Your task to perform on an android device: Open privacy settings Image 0: 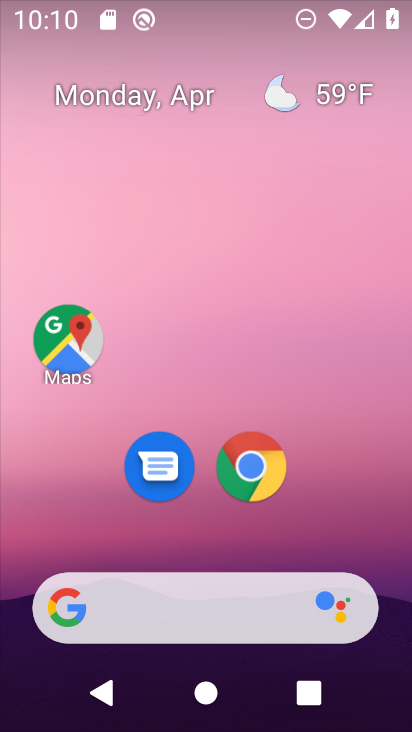
Step 0: drag from (176, 491) to (281, 9)
Your task to perform on an android device: Open privacy settings Image 1: 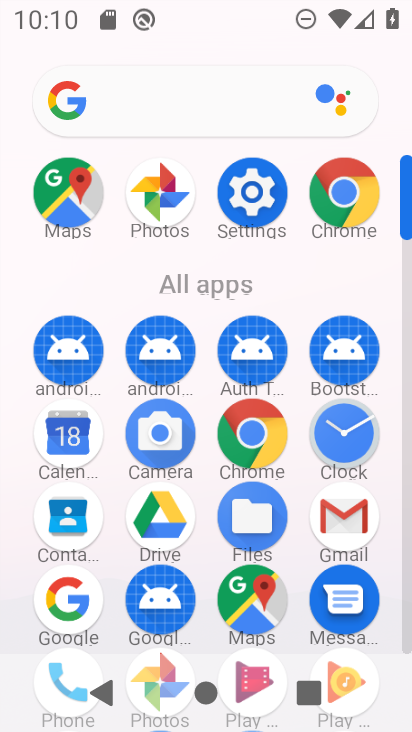
Step 1: click (245, 195)
Your task to perform on an android device: Open privacy settings Image 2: 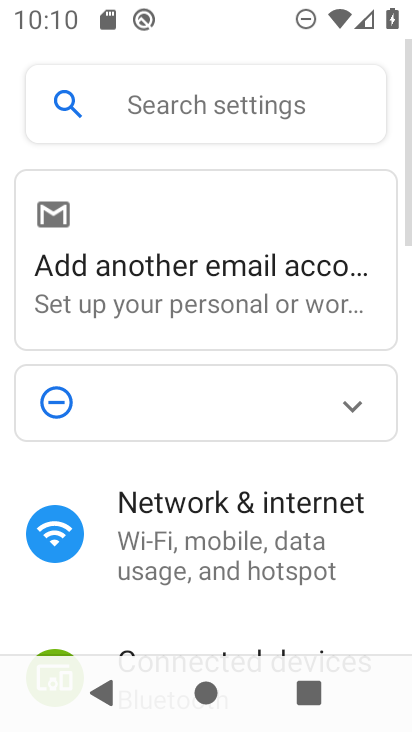
Step 2: drag from (220, 549) to (323, 26)
Your task to perform on an android device: Open privacy settings Image 3: 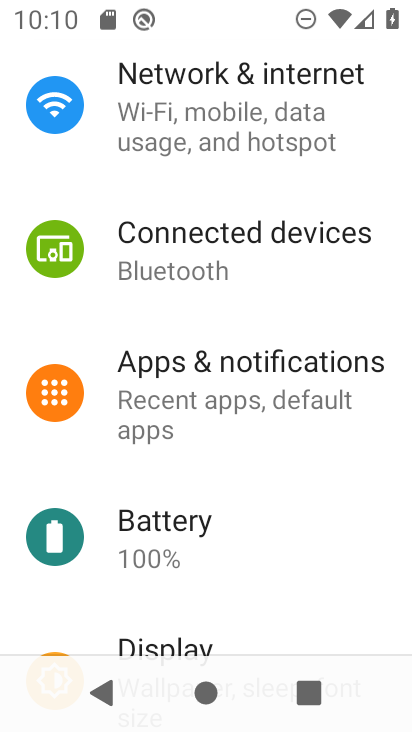
Step 3: drag from (155, 627) to (259, 69)
Your task to perform on an android device: Open privacy settings Image 4: 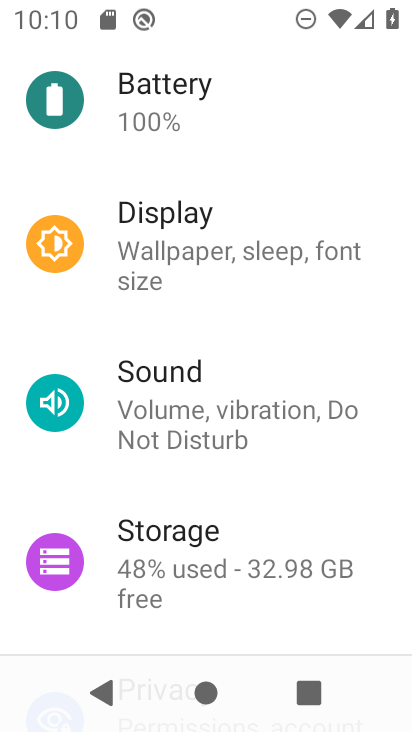
Step 4: drag from (147, 560) to (252, 89)
Your task to perform on an android device: Open privacy settings Image 5: 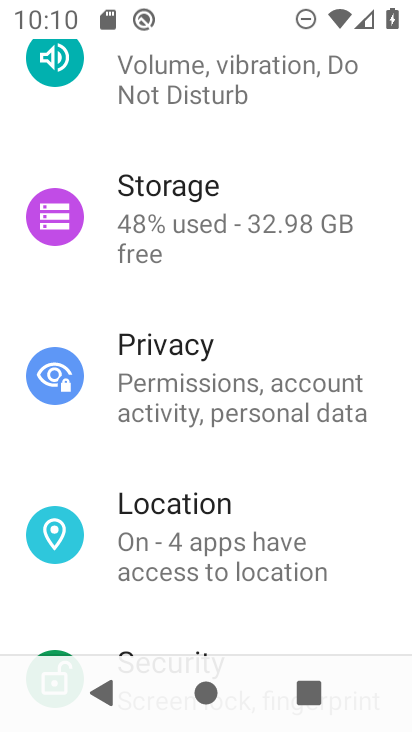
Step 5: click (185, 384)
Your task to perform on an android device: Open privacy settings Image 6: 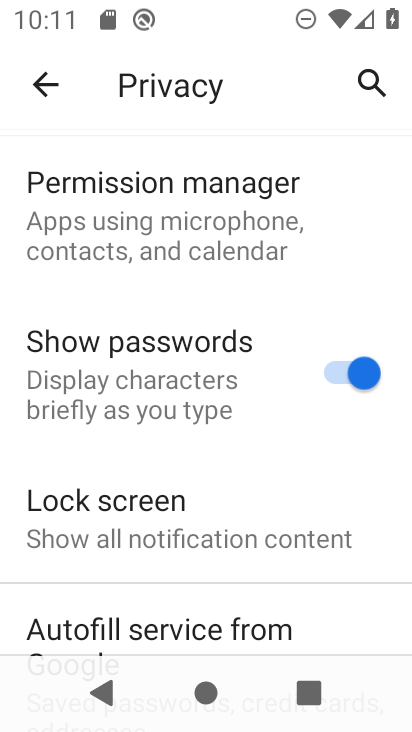
Step 6: task complete